Your task to perform on an android device: open sync settings in chrome Image 0: 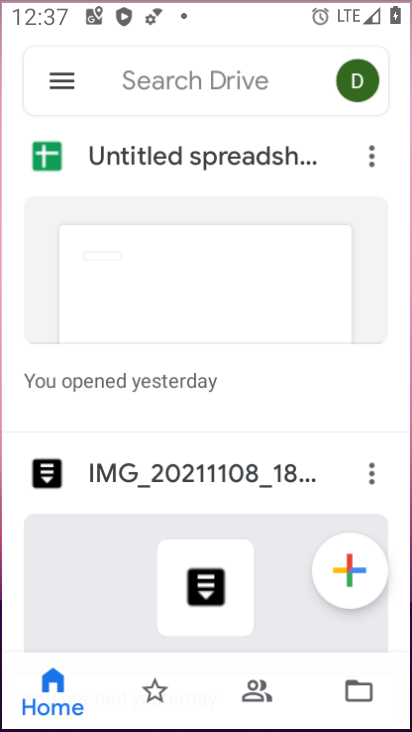
Step 0: drag from (330, 556) to (374, 72)
Your task to perform on an android device: open sync settings in chrome Image 1: 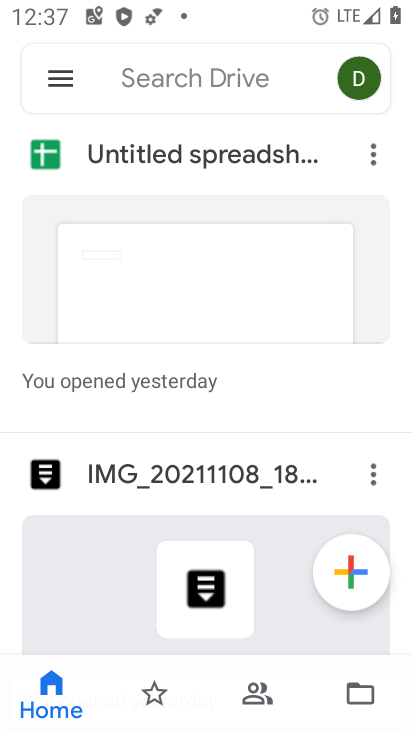
Step 1: press home button
Your task to perform on an android device: open sync settings in chrome Image 2: 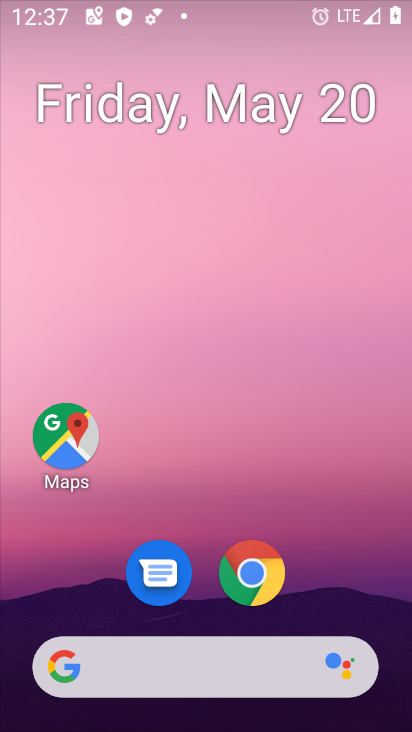
Step 2: click (263, 581)
Your task to perform on an android device: open sync settings in chrome Image 3: 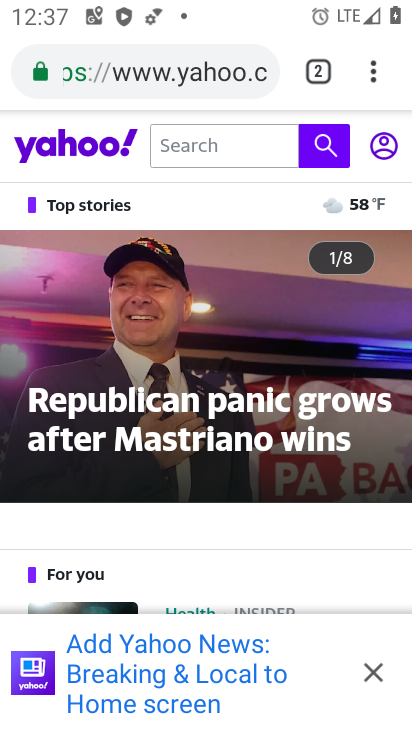
Step 3: click (367, 76)
Your task to perform on an android device: open sync settings in chrome Image 4: 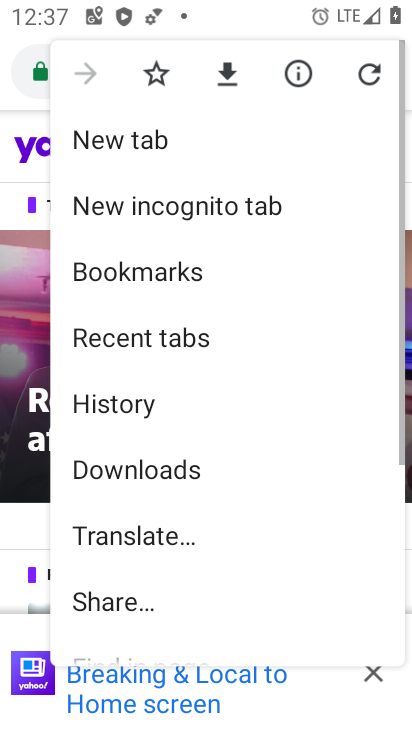
Step 4: drag from (243, 559) to (248, 175)
Your task to perform on an android device: open sync settings in chrome Image 5: 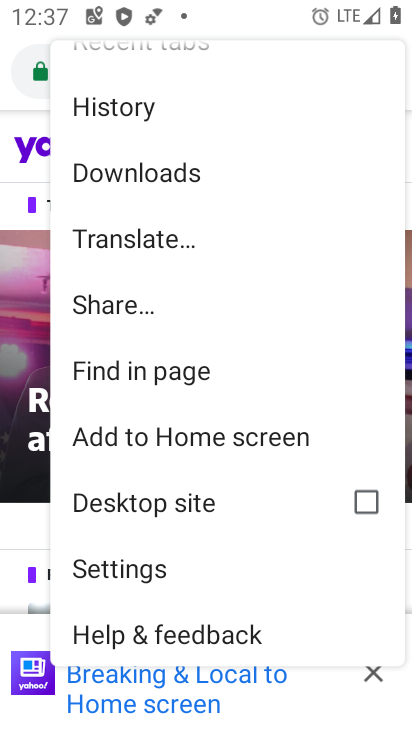
Step 5: click (129, 579)
Your task to perform on an android device: open sync settings in chrome Image 6: 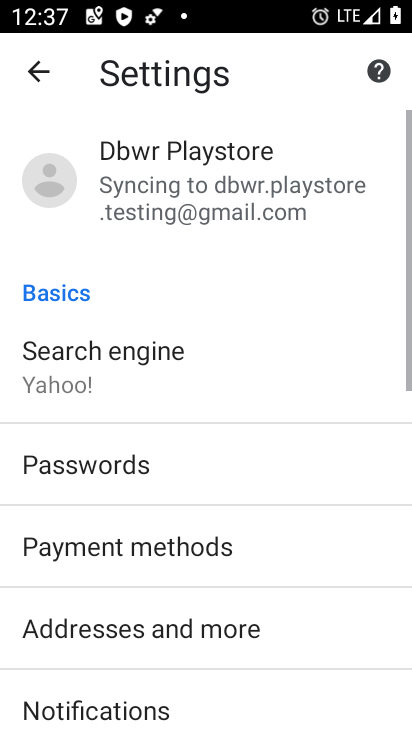
Step 6: drag from (145, 571) to (189, 168)
Your task to perform on an android device: open sync settings in chrome Image 7: 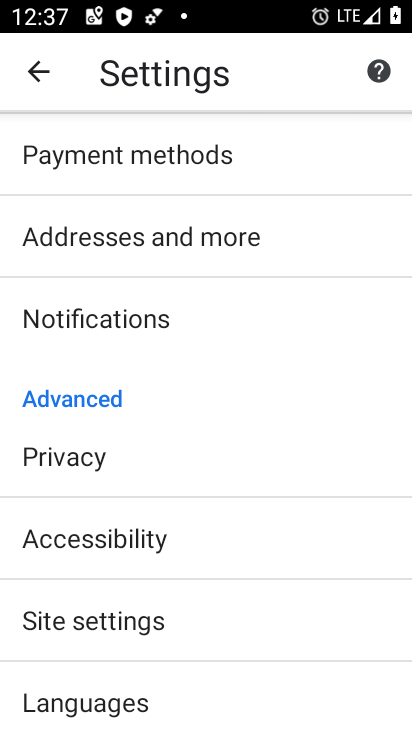
Step 7: click (123, 617)
Your task to perform on an android device: open sync settings in chrome Image 8: 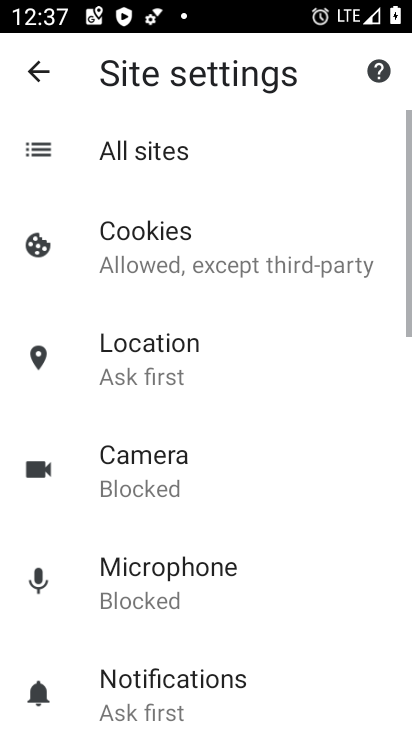
Step 8: drag from (240, 632) to (234, 170)
Your task to perform on an android device: open sync settings in chrome Image 9: 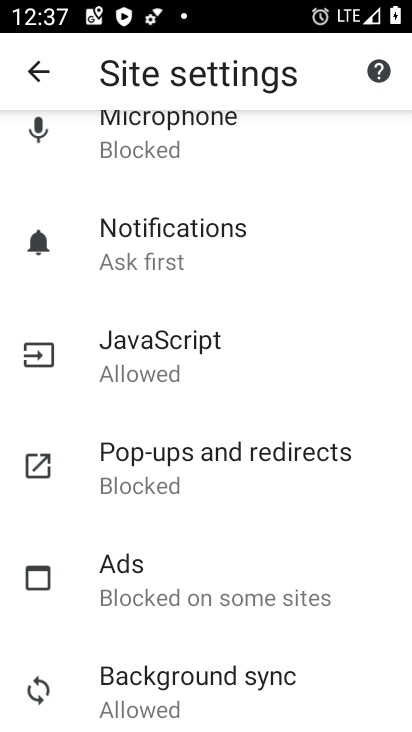
Step 9: click (213, 681)
Your task to perform on an android device: open sync settings in chrome Image 10: 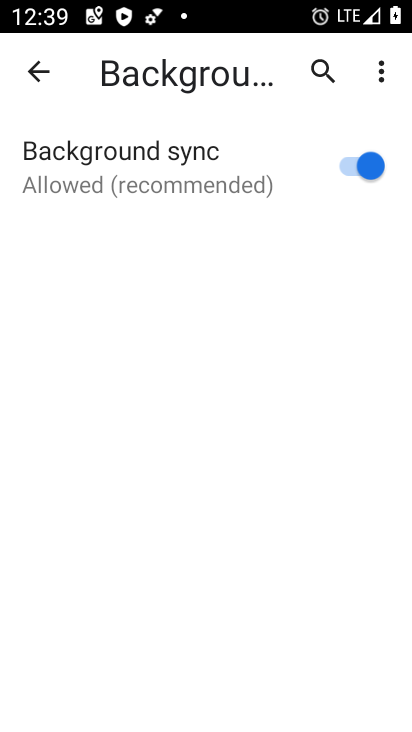
Step 10: task complete